Your task to perform on an android device: check android version Image 0: 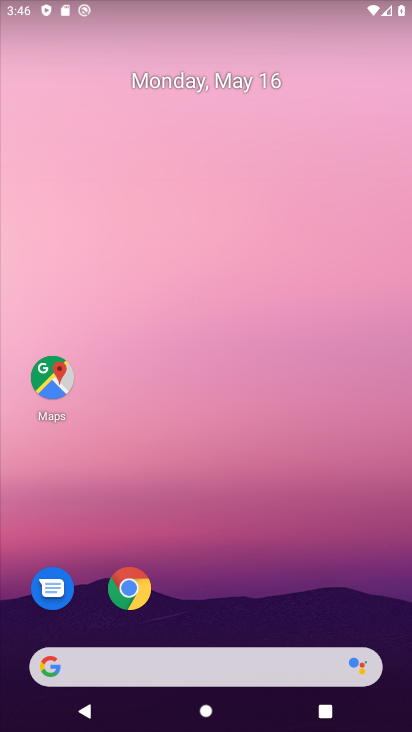
Step 0: drag from (210, 583) to (315, 192)
Your task to perform on an android device: check android version Image 1: 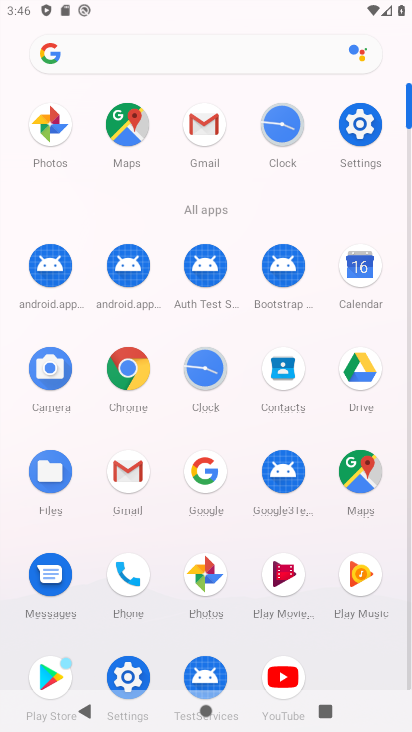
Step 1: click (117, 684)
Your task to perform on an android device: check android version Image 2: 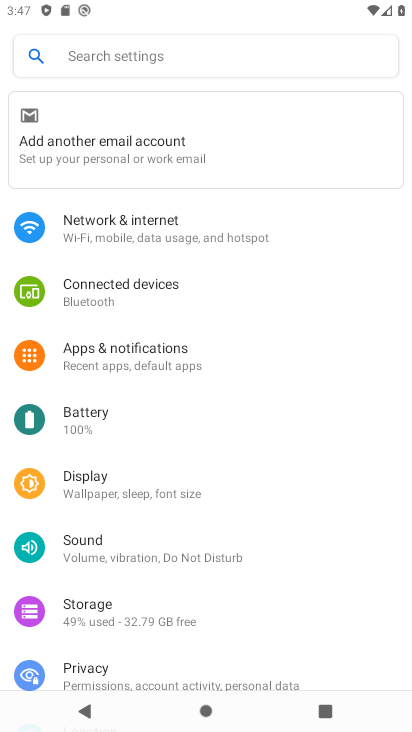
Step 2: drag from (150, 624) to (228, 207)
Your task to perform on an android device: check android version Image 3: 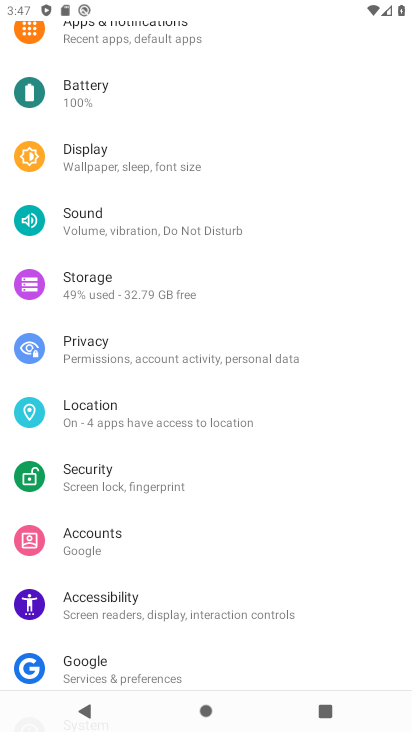
Step 3: drag from (181, 630) to (242, 406)
Your task to perform on an android device: check android version Image 4: 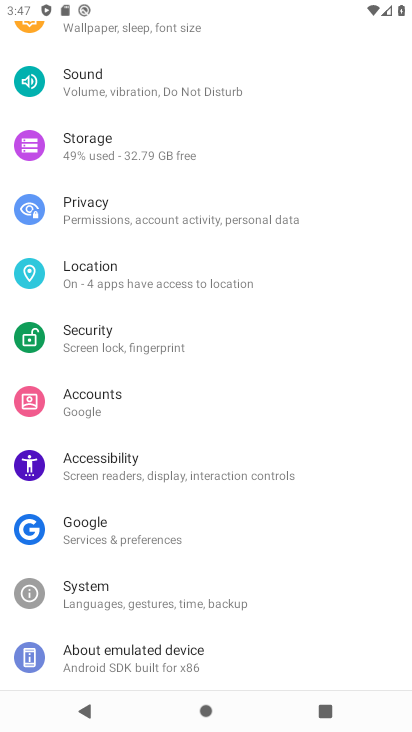
Step 4: click (165, 652)
Your task to perform on an android device: check android version Image 5: 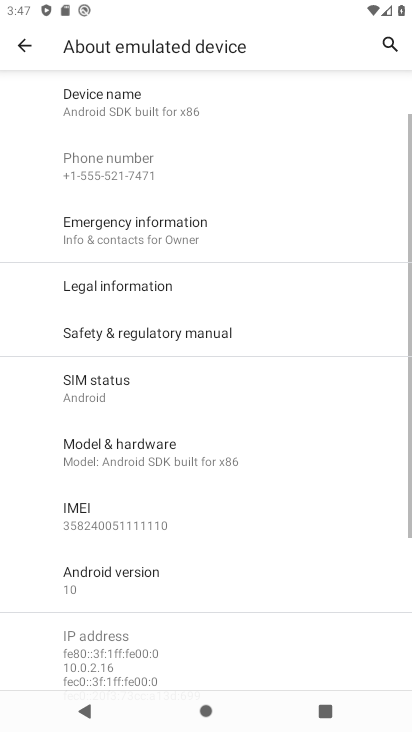
Step 5: click (169, 581)
Your task to perform on an android device: check android version Image 6: 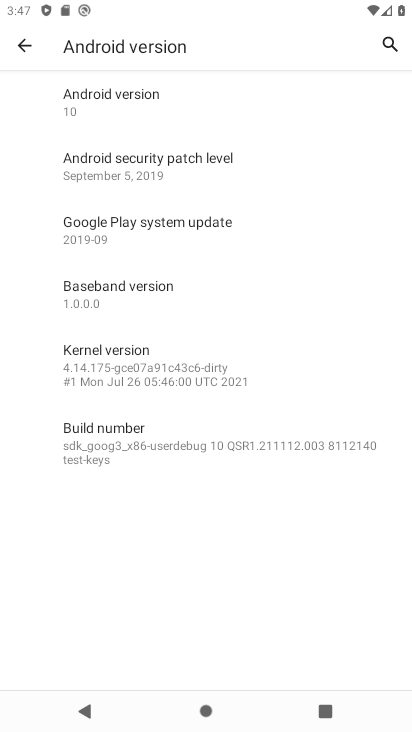
Step 6: task complete